Your task to perform on an android device: refresh tabs in the chrome app Image 0: 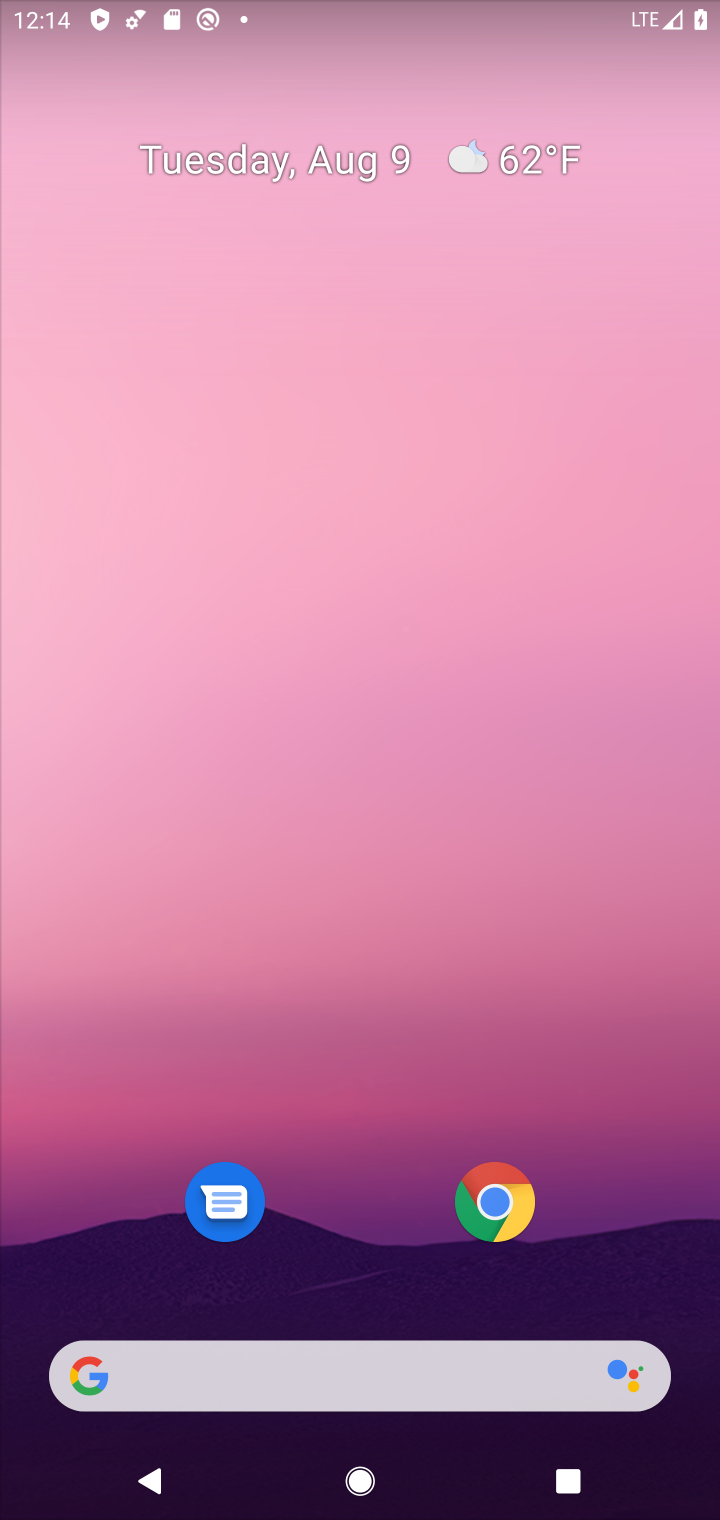
Step 0: click (496, 1215)
Your task to perform on an android device: refresh tabs in the chrome app Image 1: 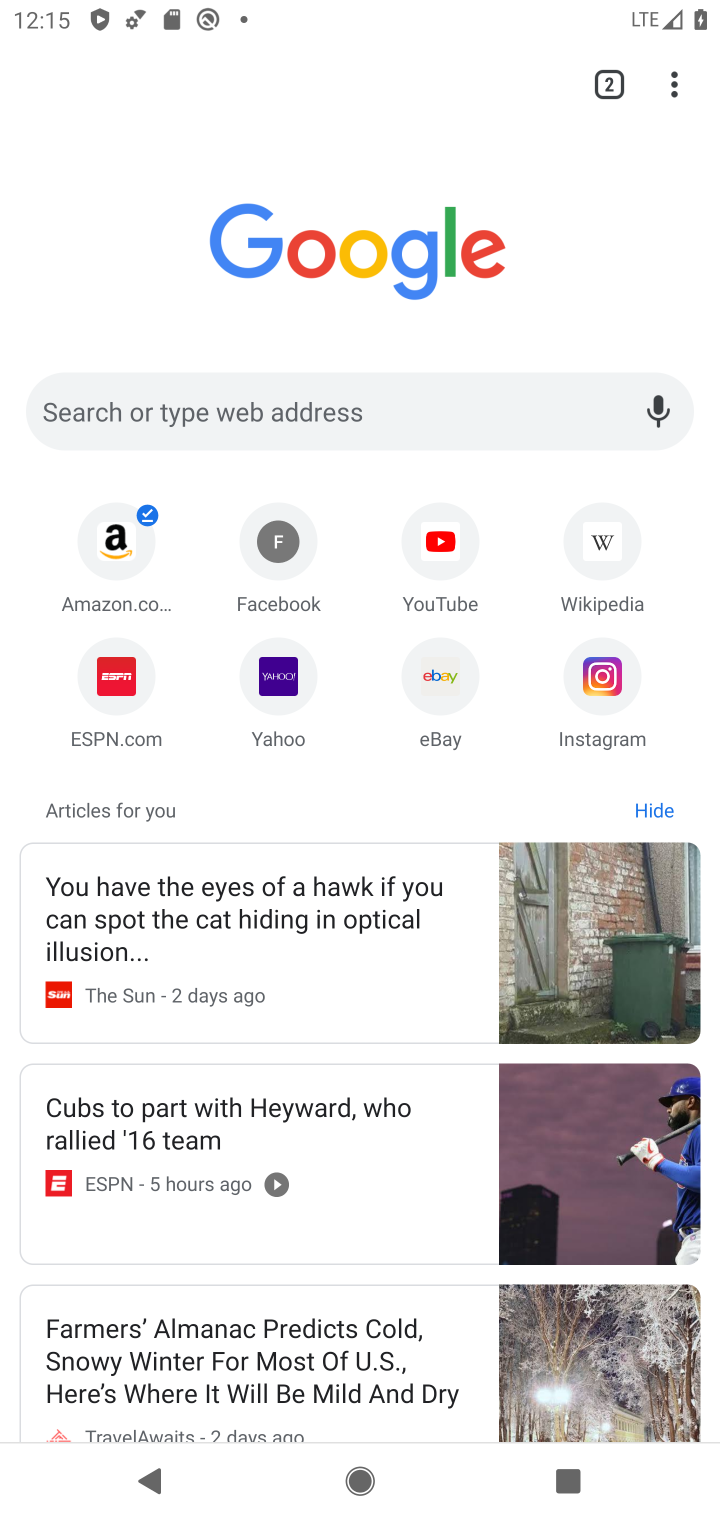
Step 1: click (669, 87)
Your task to perform on an android device: refresh tabs in the chrome app Image 2: 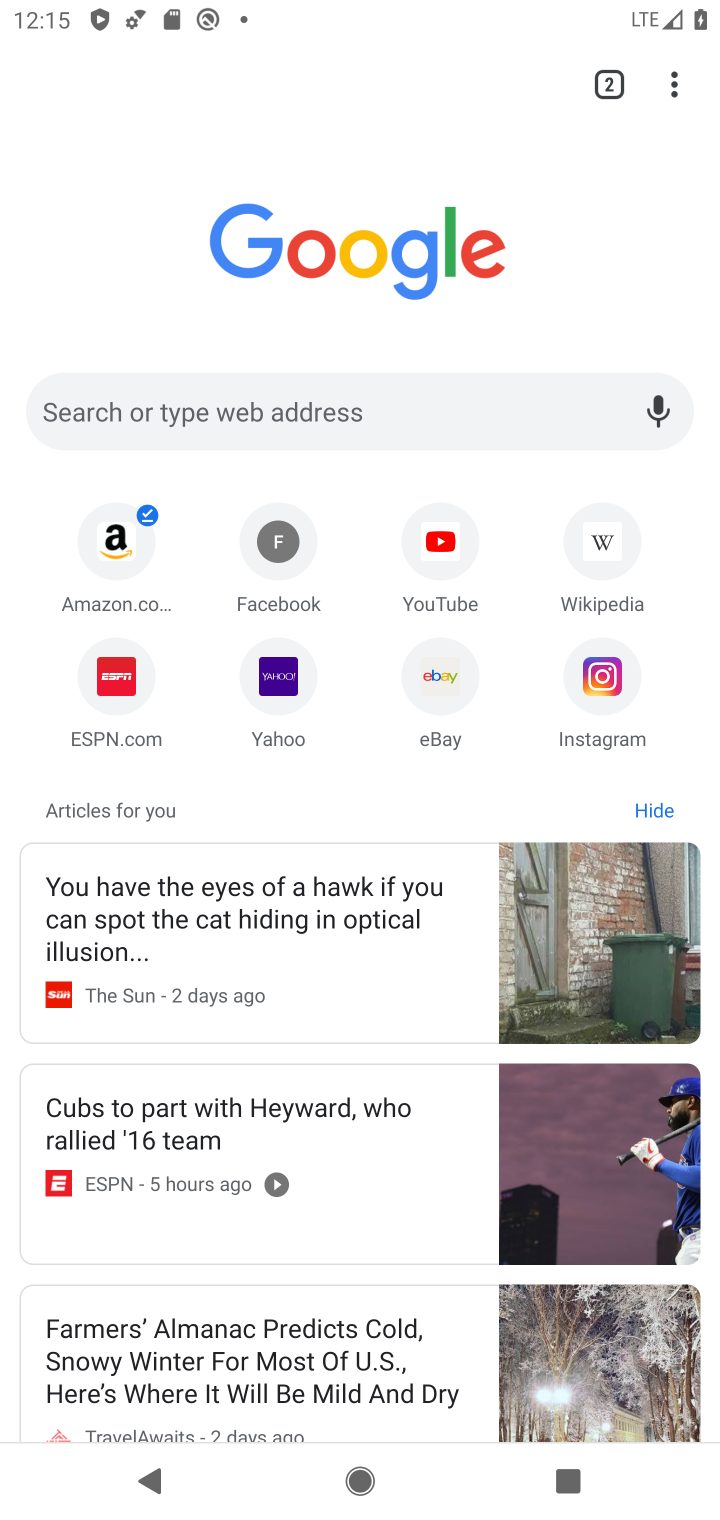
Step 2: click (663, 88)
Your task to perform on an android device: refresh tabs in the chrome app Image 3: 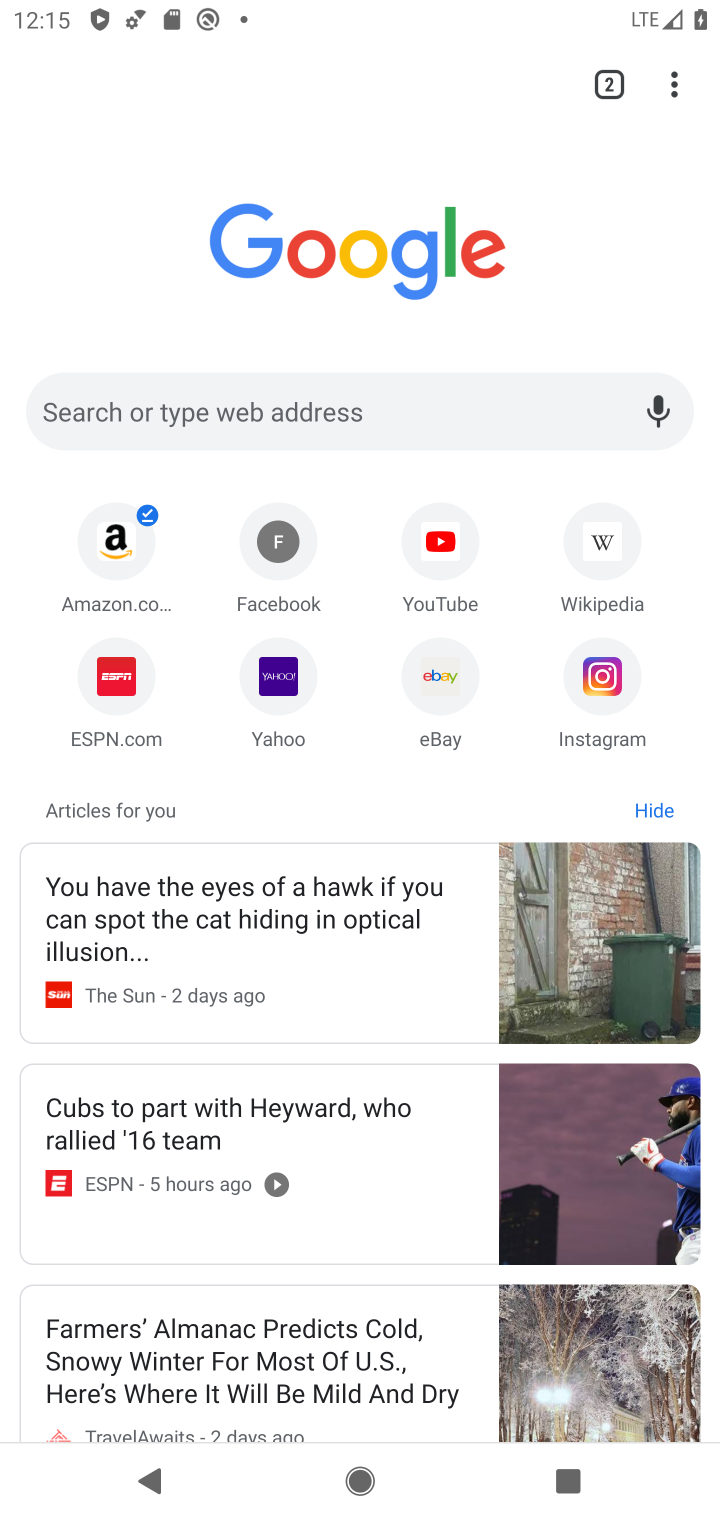
Step 3: click (682, 88)
Your task to perform on an android device: refresh tabs in the chrome app Image 4: 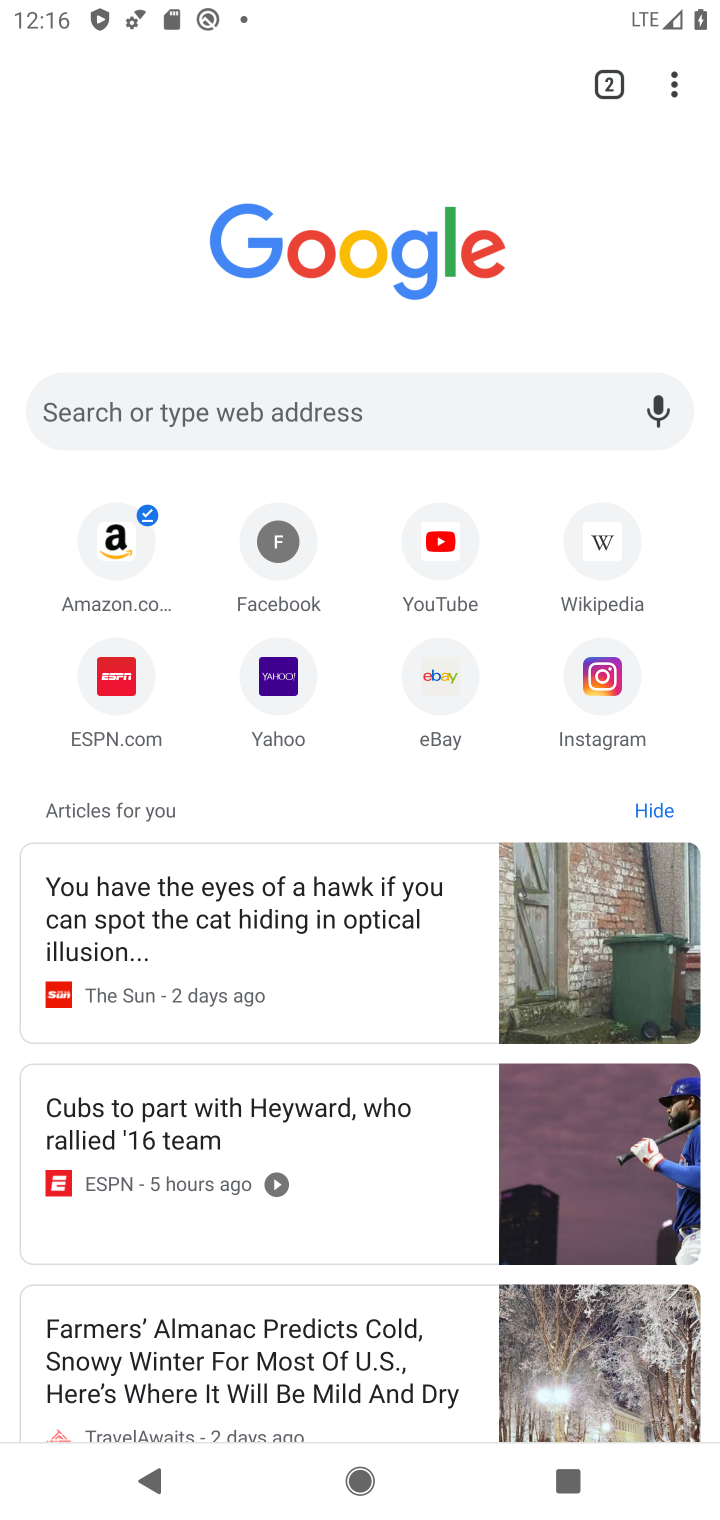
Step 4: click (682, 88)
Your task to perform on an android device: refresh tabs in the chrome app Image 5: 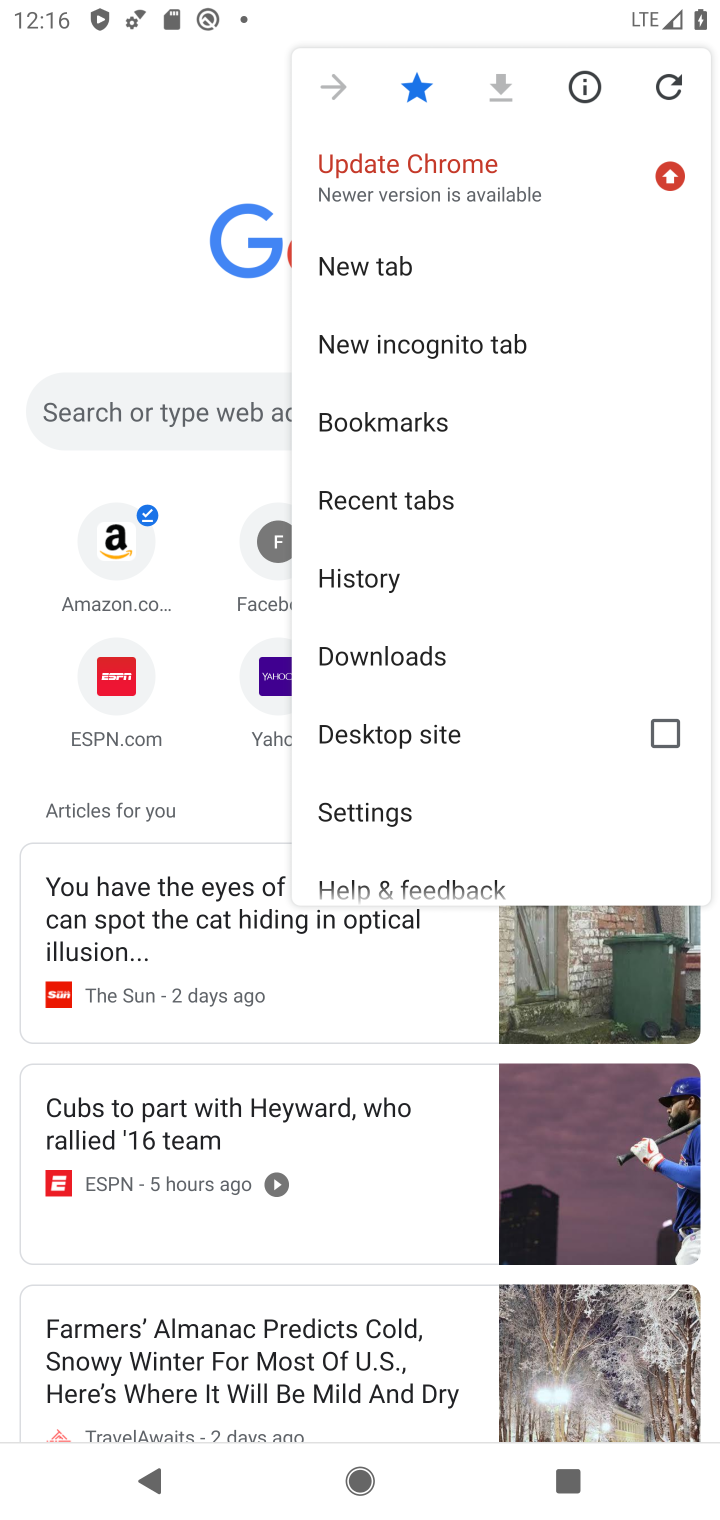
Step 5: click (671, 78)
Your task to perform on an android device: refresh tabs in the chrome app Image 6: 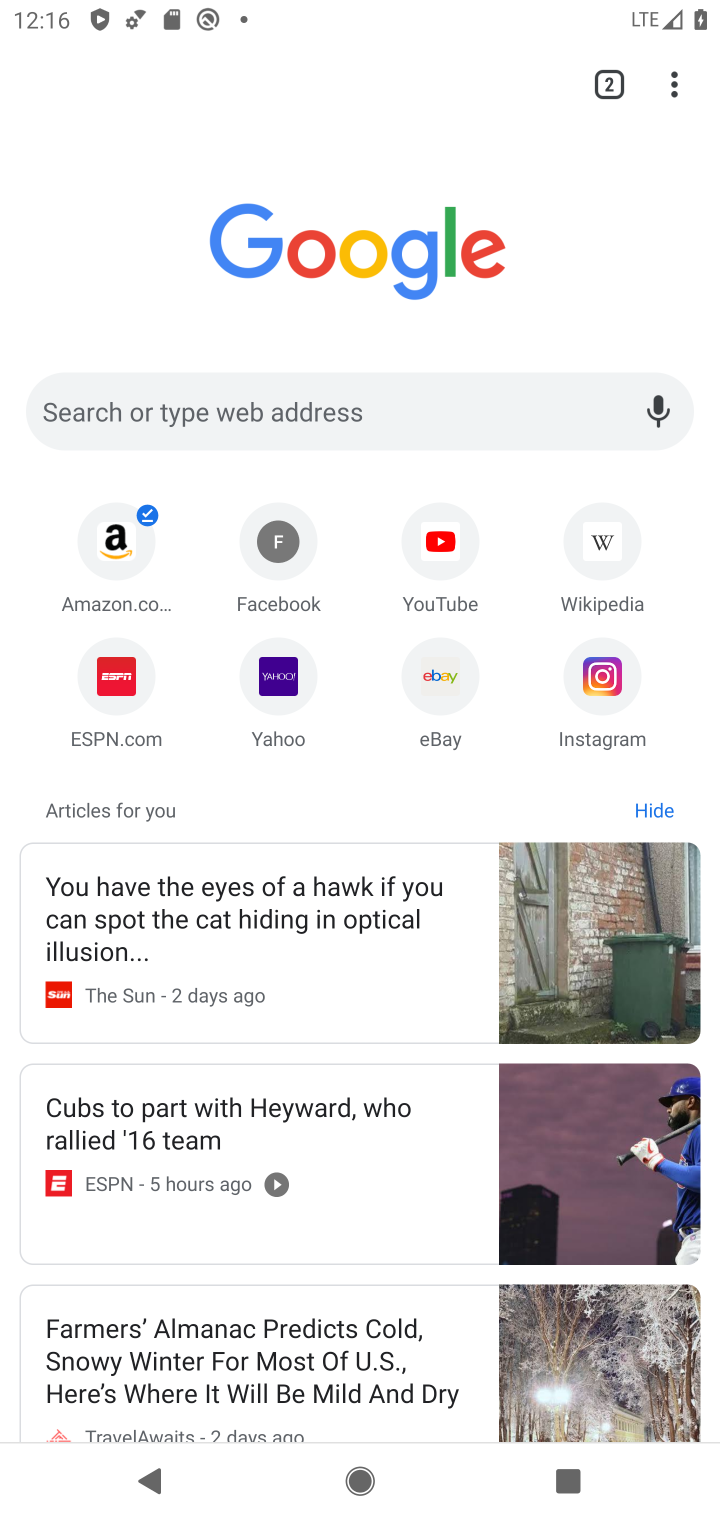
Step 6: task complete